Your task to perform on an android device: turn off sleep mode Image 0: 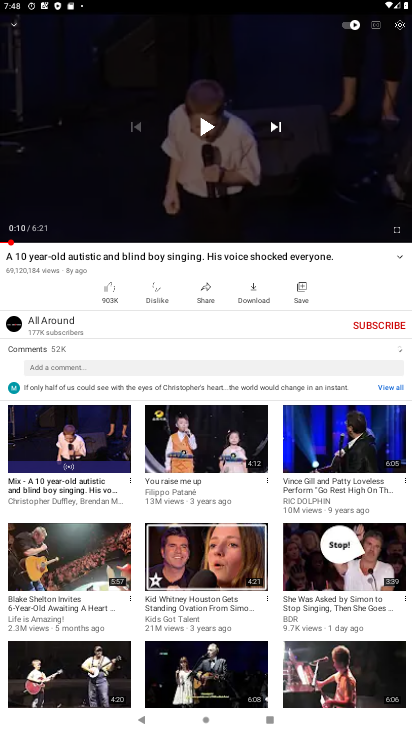
Step 0: press home button
Your task to perform on an android device: turn off sleep mode Image 1: 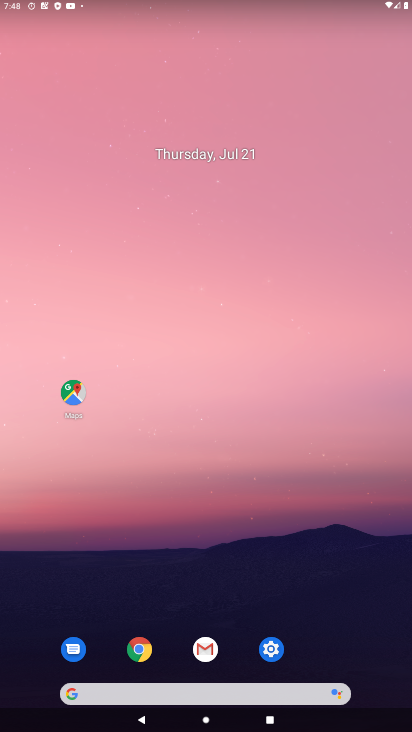
Step 1: click (277, 656)
Your task to perform on an android device: turn off sleep mode Image 2: 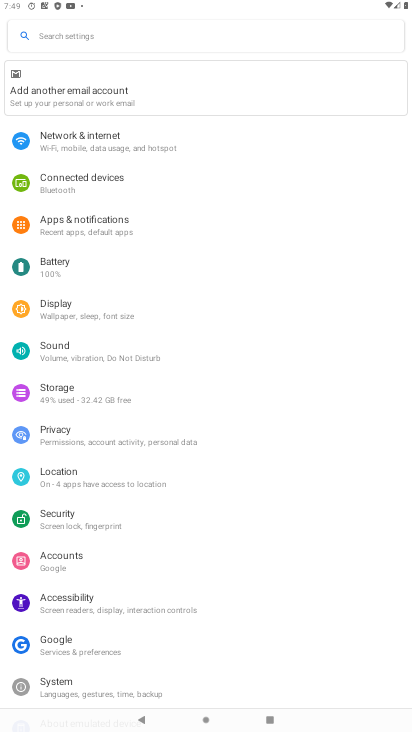
Step 2: click (110, 37)
Your task to perform on an android device: turn off sleep mode Image 3: 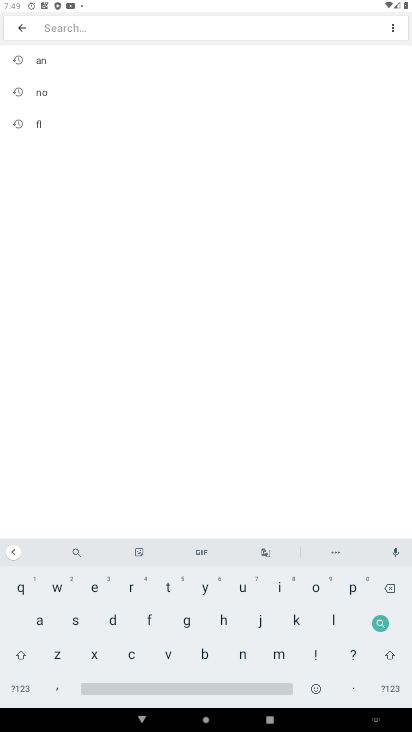
Step 3: click (73, 626)
Your task to perform on an android device: turn off sleep mode Image 4: 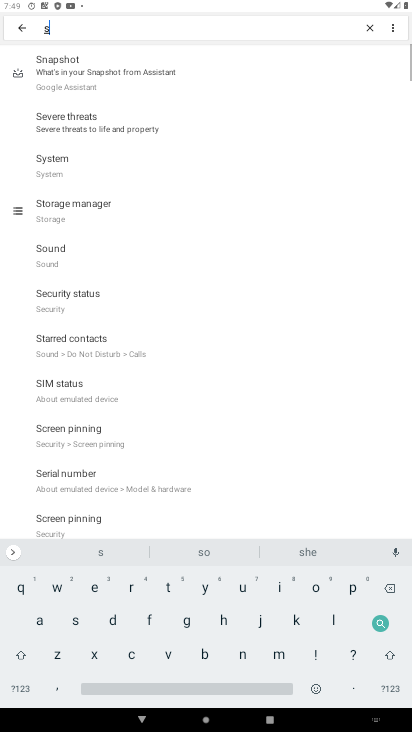
Step 4: click (336, 614)
Your task to perform on an android device: turn off sleep mode Image 5: 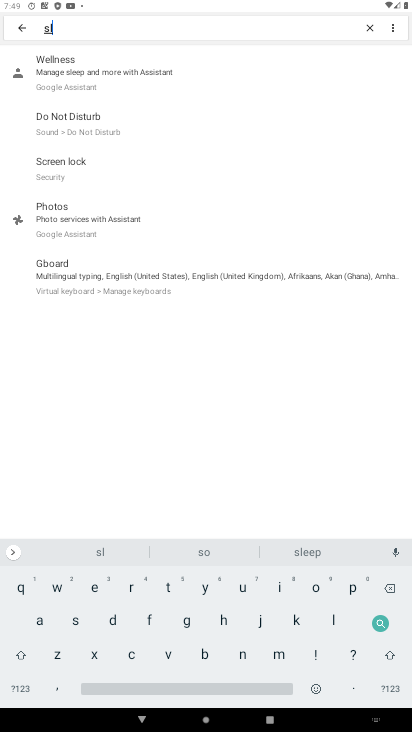
Step 5: click (68, 119)
Your task to perform on an android device: turn off sleep mode Image 6: 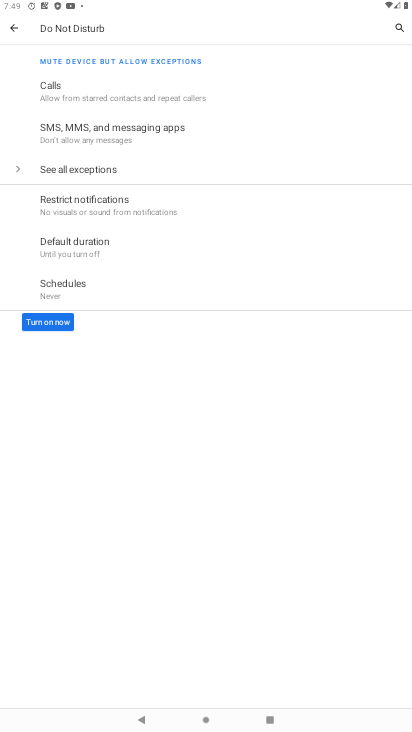
Step 6: task complete